Your task to perform on an android device: Go to Yahoo.com Image 0: 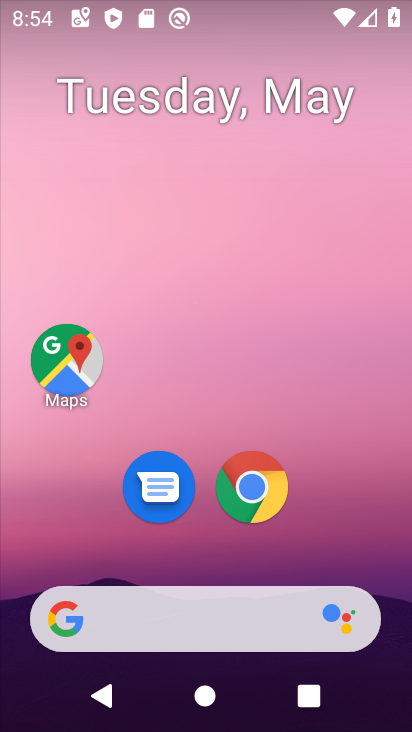
Step 0: drag from (368, 551) to (358, 209)
Your task to perform on an android device: Go to Yahoo.com Image 1: 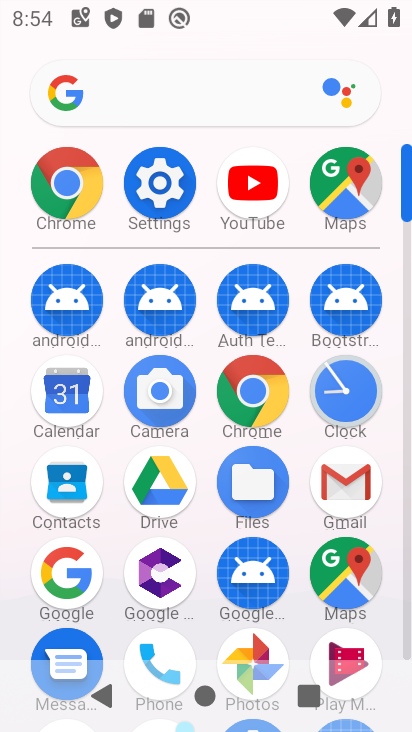
Step 1: click (259, 398)
Your task to perform on an android device: Go to Yahoo.com Image 2: 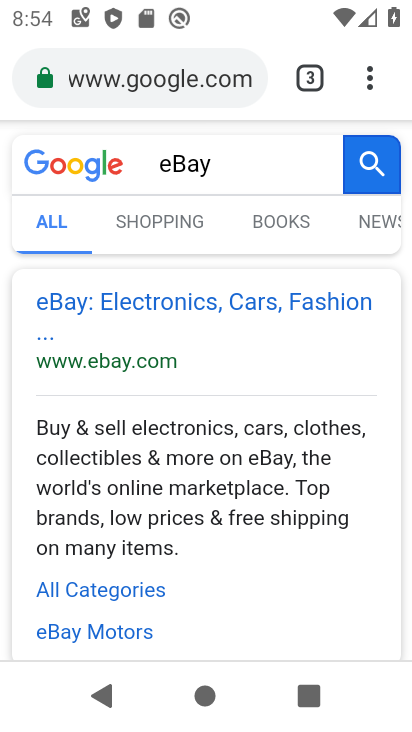
Step 2: click (232, 83)
Your task to perform on an android device: Go to Yahoo.com Image 3: 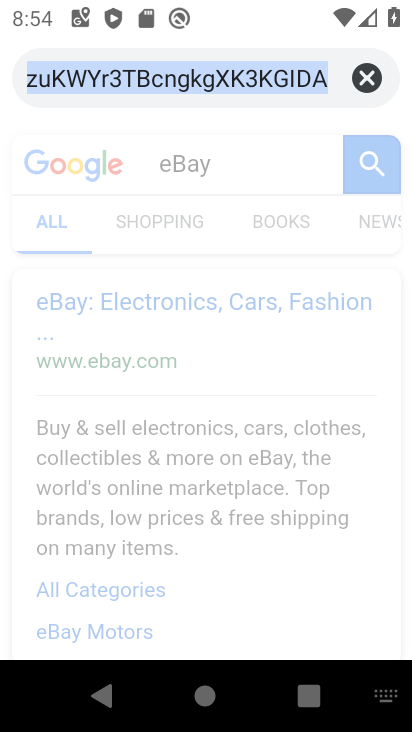
Step 3: click (369, 79)
Your task to perform on an android device: Go to Yahoo.com Image 4: 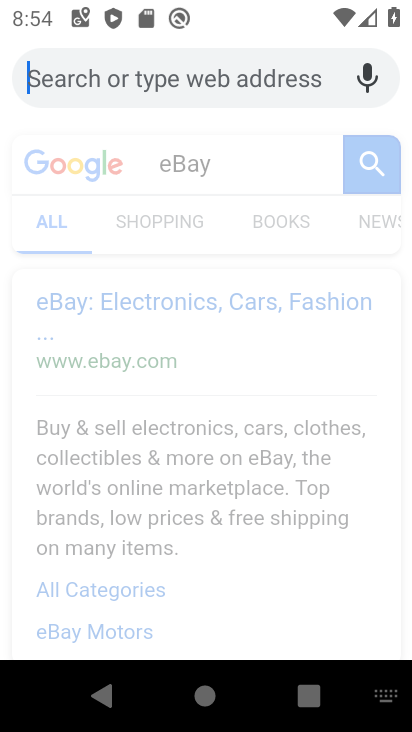
Step 4: type "yahoo.com"
Your task to perform on an android device: Go to Yahoo.com Image 5: 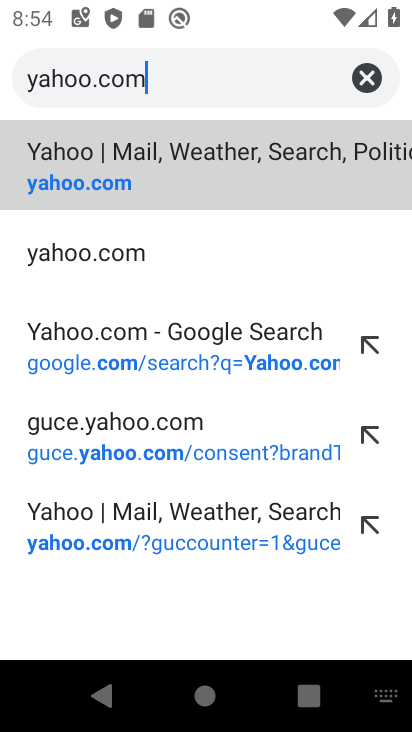
Step 5: click (231, 168)
Your task to perform on an android device: Go to Yahoo.com Image 6: 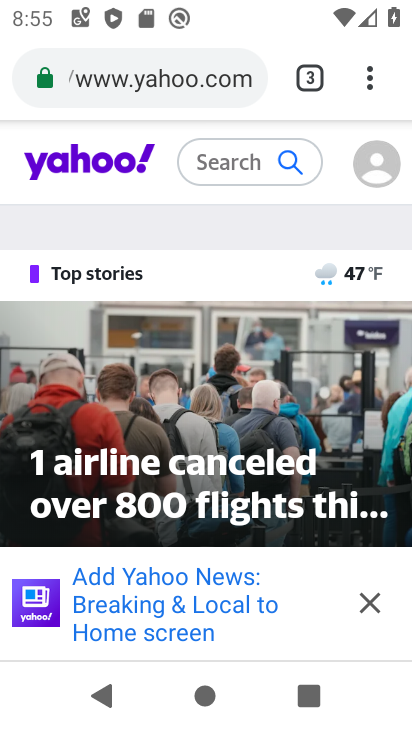
Step 6: task complete